Your task to perform on an android device: Open CNN.com Image 0: 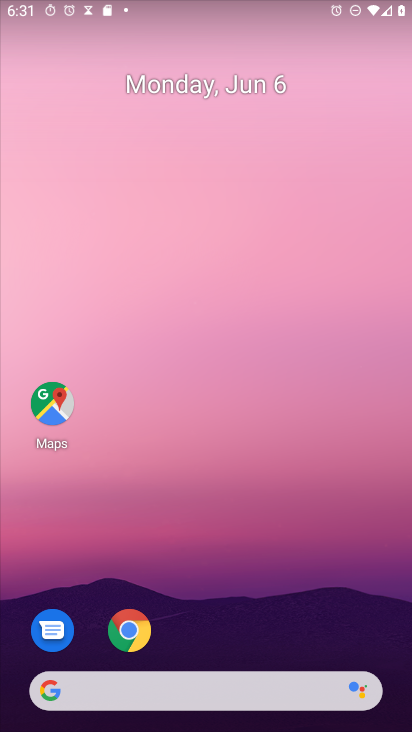
Step 0: click (111, 631)
Your task to perform on an android device: Open CNN.com Image 1: 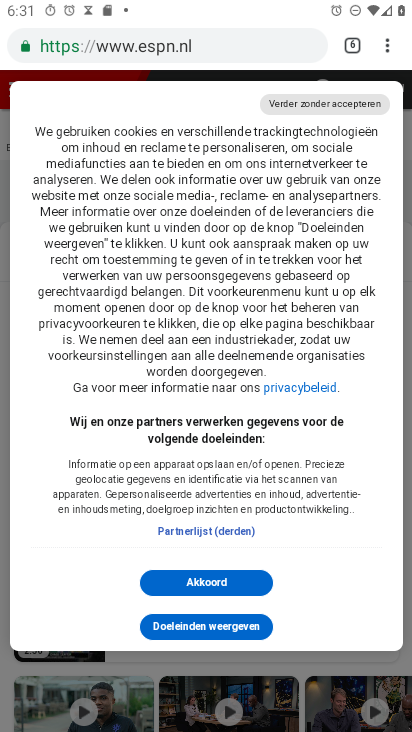
Step 1: click (351, 45)
Your task to perform on an android device: Open CNN.com Image 2: 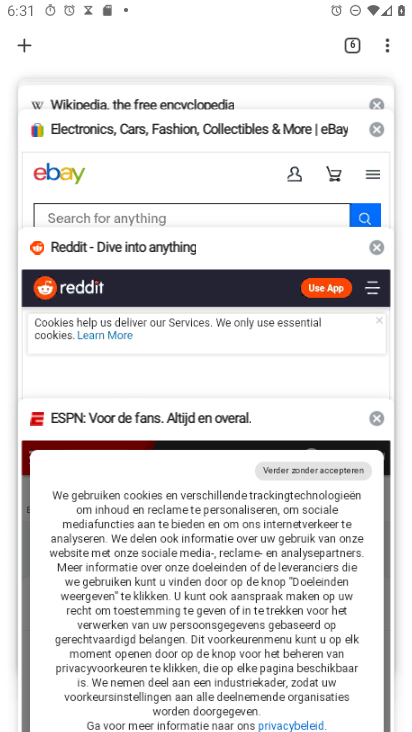
Step 2: click (18, 39)
Your task to perform on an android device: Open CNN.com Image 3: 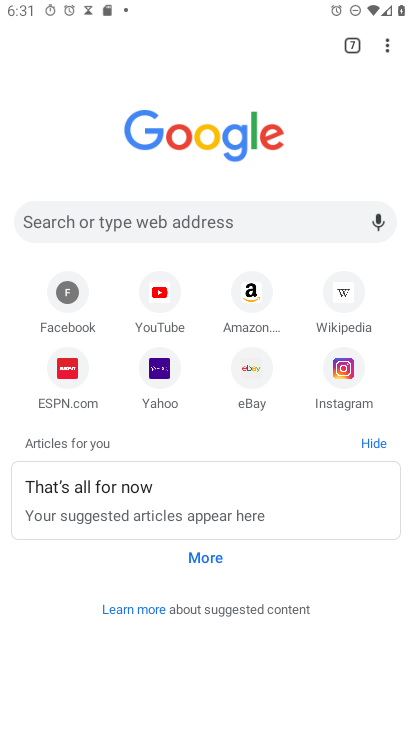
Step 3: click (199, 214)
Your task to perform on an android device: Open CNN.com Image 4: 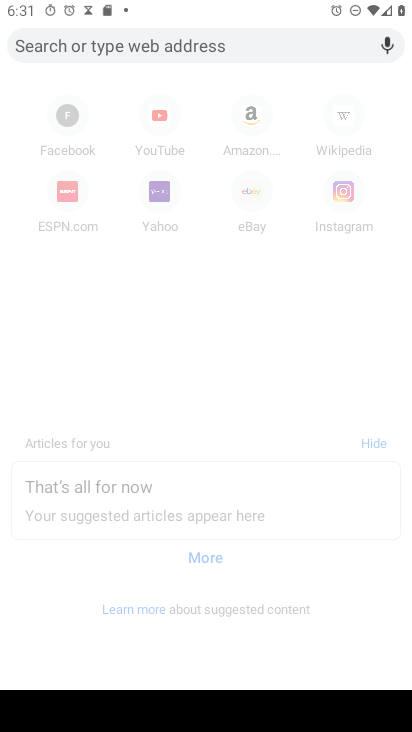
Step 4: type "CNN.com"
Your task to perform on an android device: Open CNN.com Image 5: 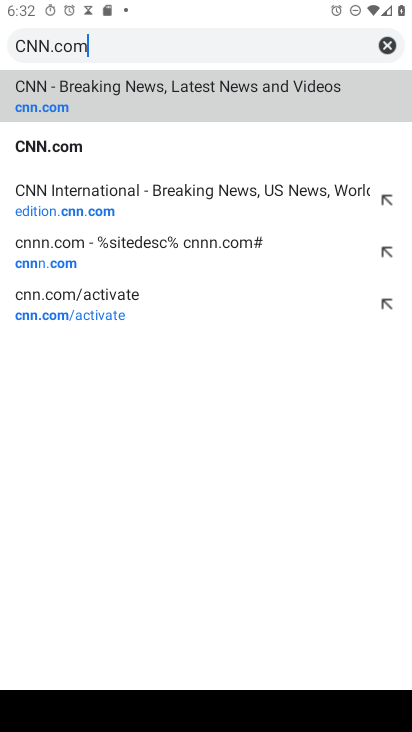
Step 5: click (262, 90)
Your task to perform on an android device: Open CNN.com Image 6: 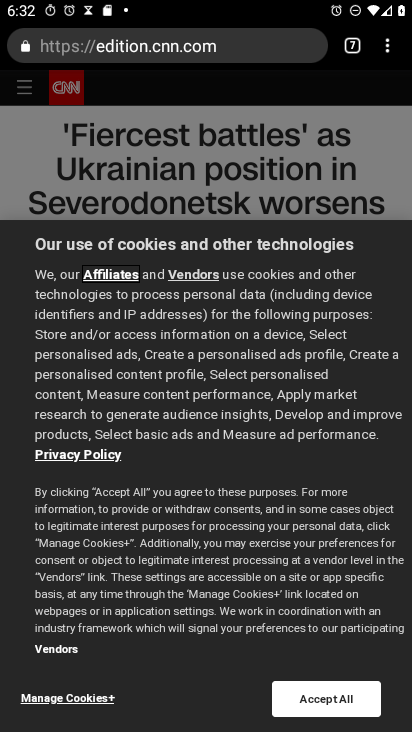
Step 6: task complete